Your task to perform on an android device: Open Google Maps and go to "Timeline" Image 0: 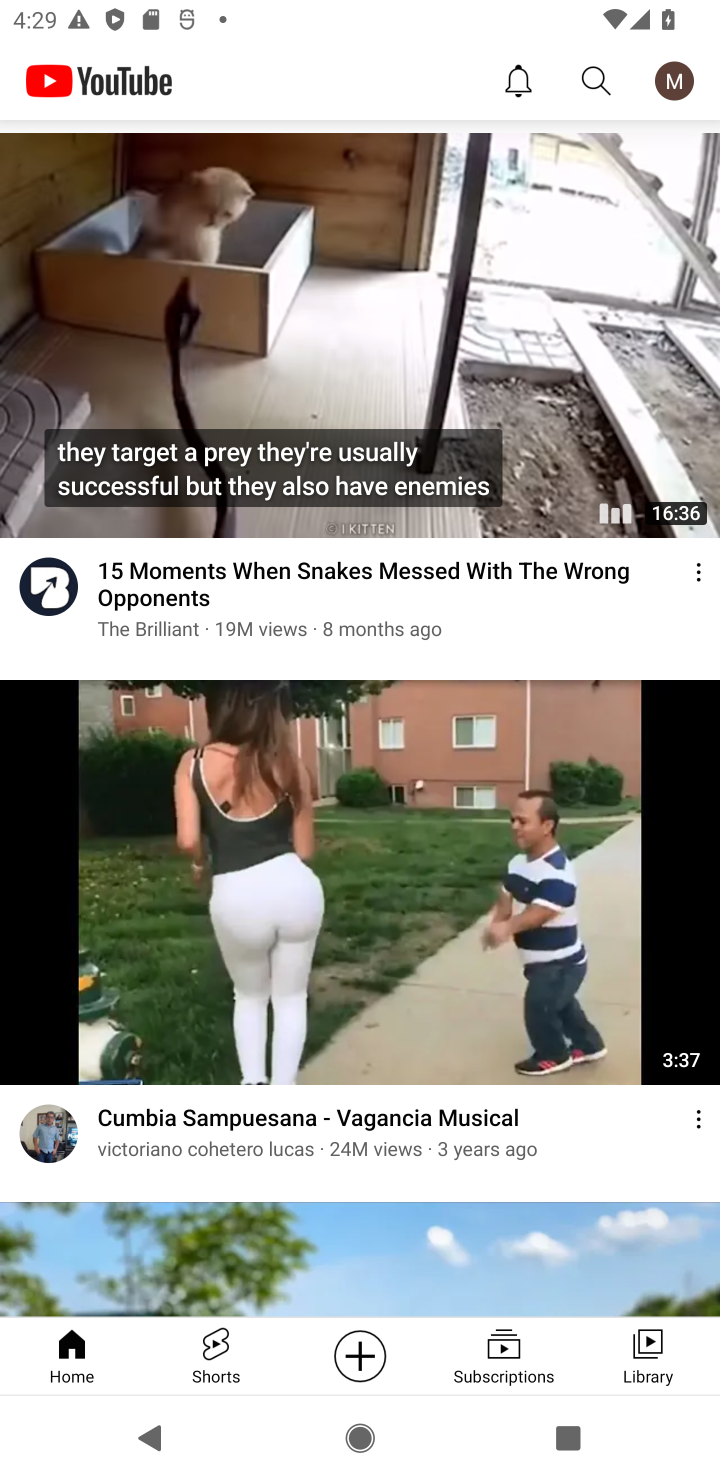
Step 0: press back button
Your task to perform on an android device: Open Google Maps and go to "Timeline" Image 1: 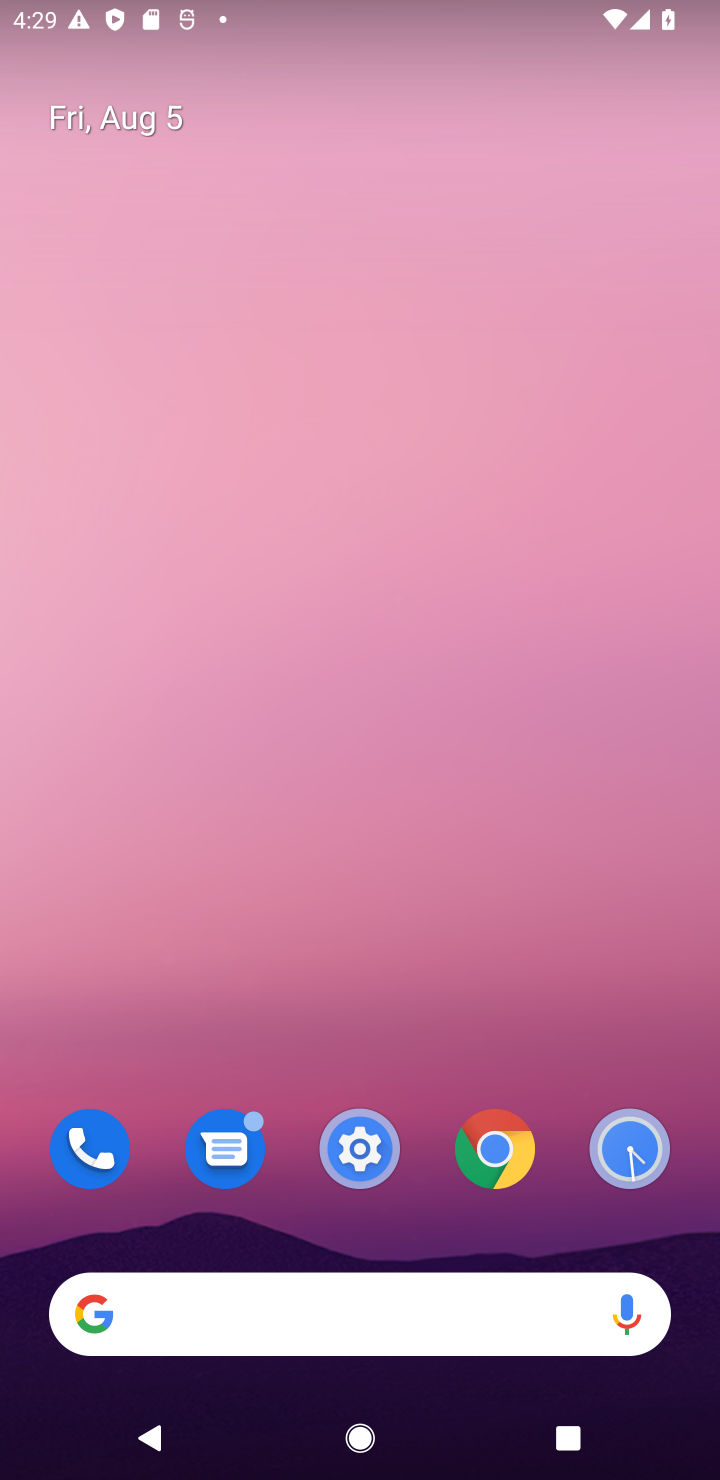
Step 1: press back button
Your task to perform on an android device: Open Google Maps and go to "Timeline" Image 2: 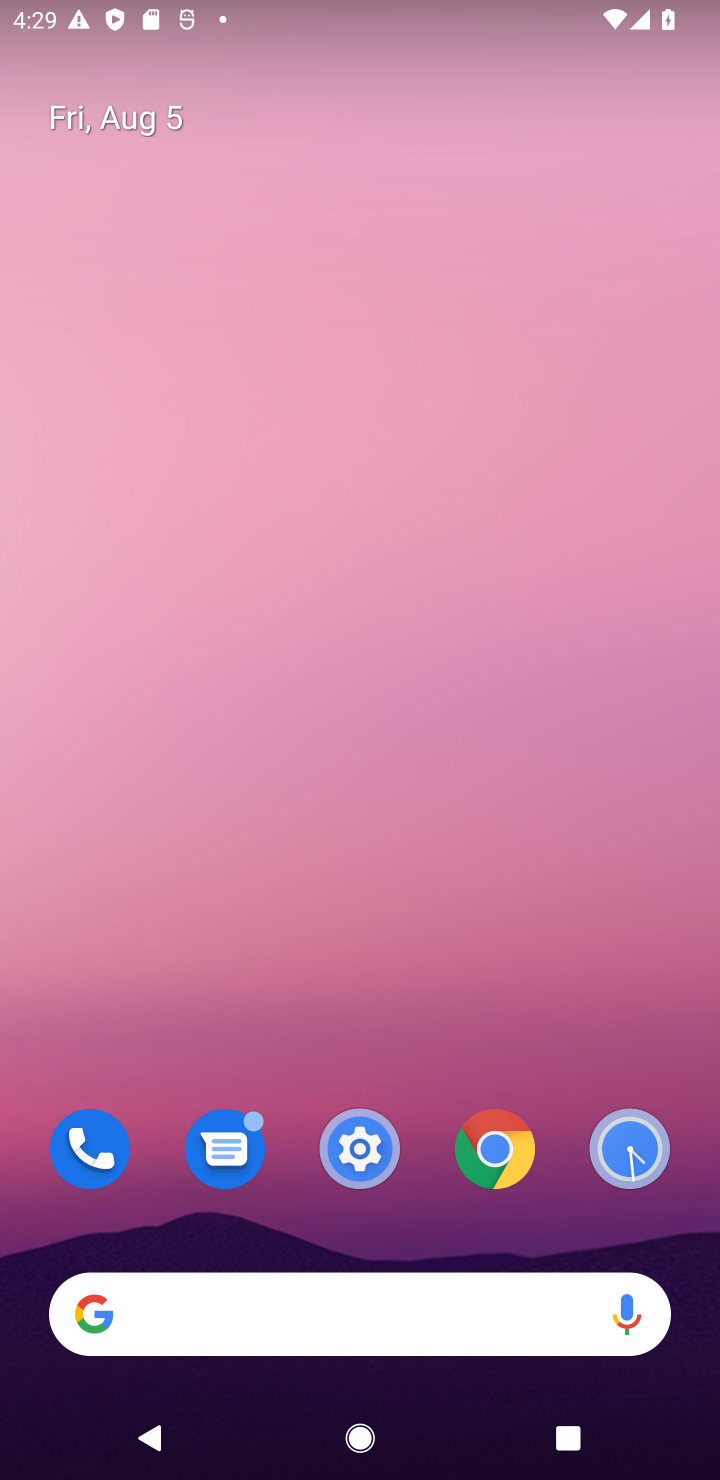
Step 2: drag from (289, 1050) to (397, 37)
Your task to perform on an android device: Open Google Maps and go to "Timeline" Image 3: 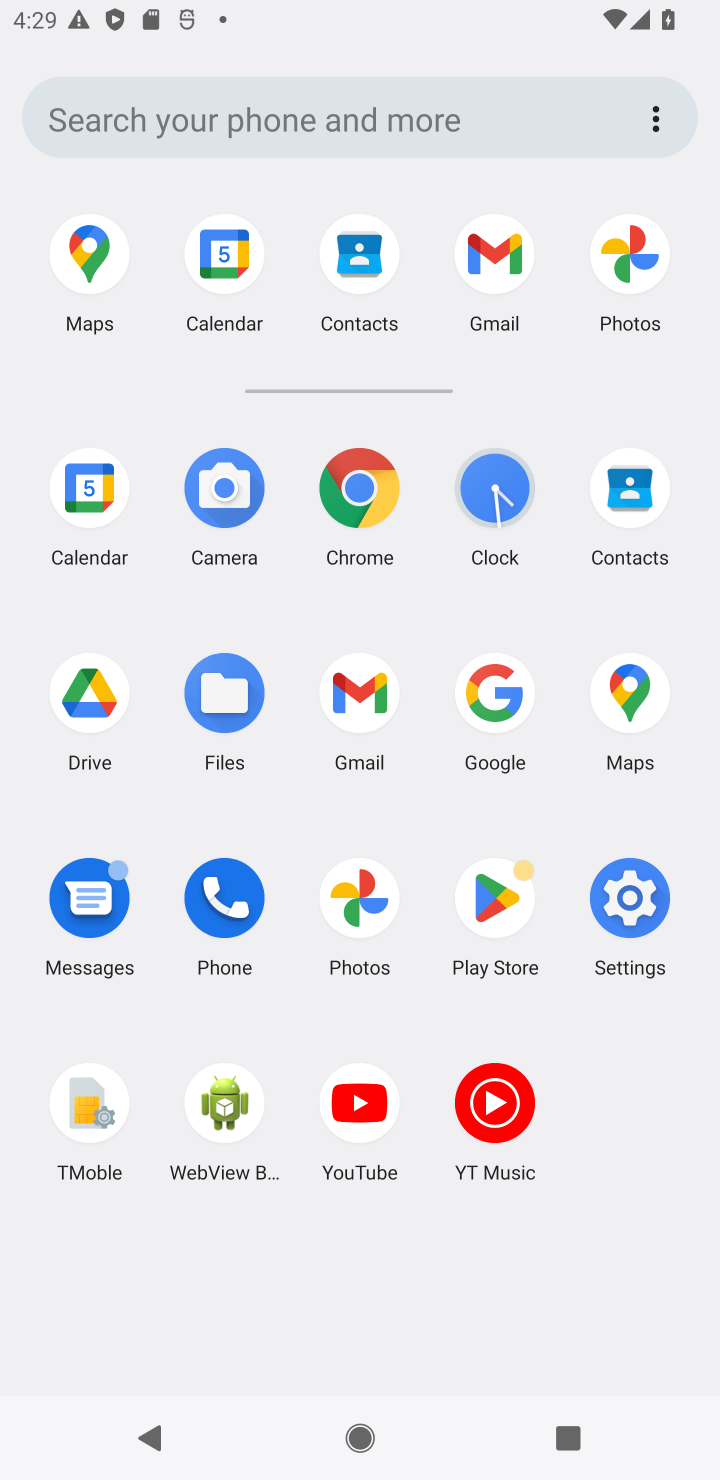
Step 3: click (72, 290)
Your task to perform on an android device: Open Google Maps and go to "Timeline" Image 4: 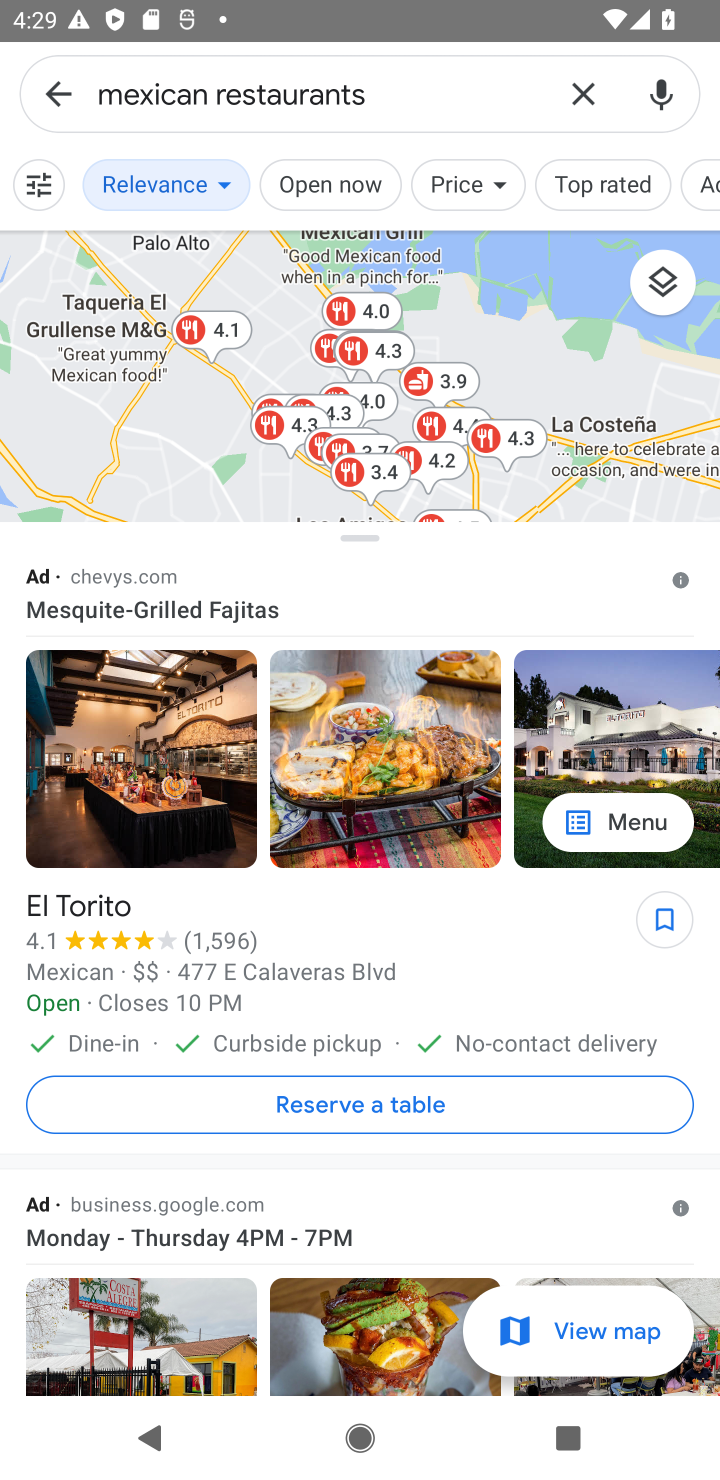
Step 4: click (63, 96)
Your task to perform on an android device: Open Google Maps and go to "Timeline" Image 5: 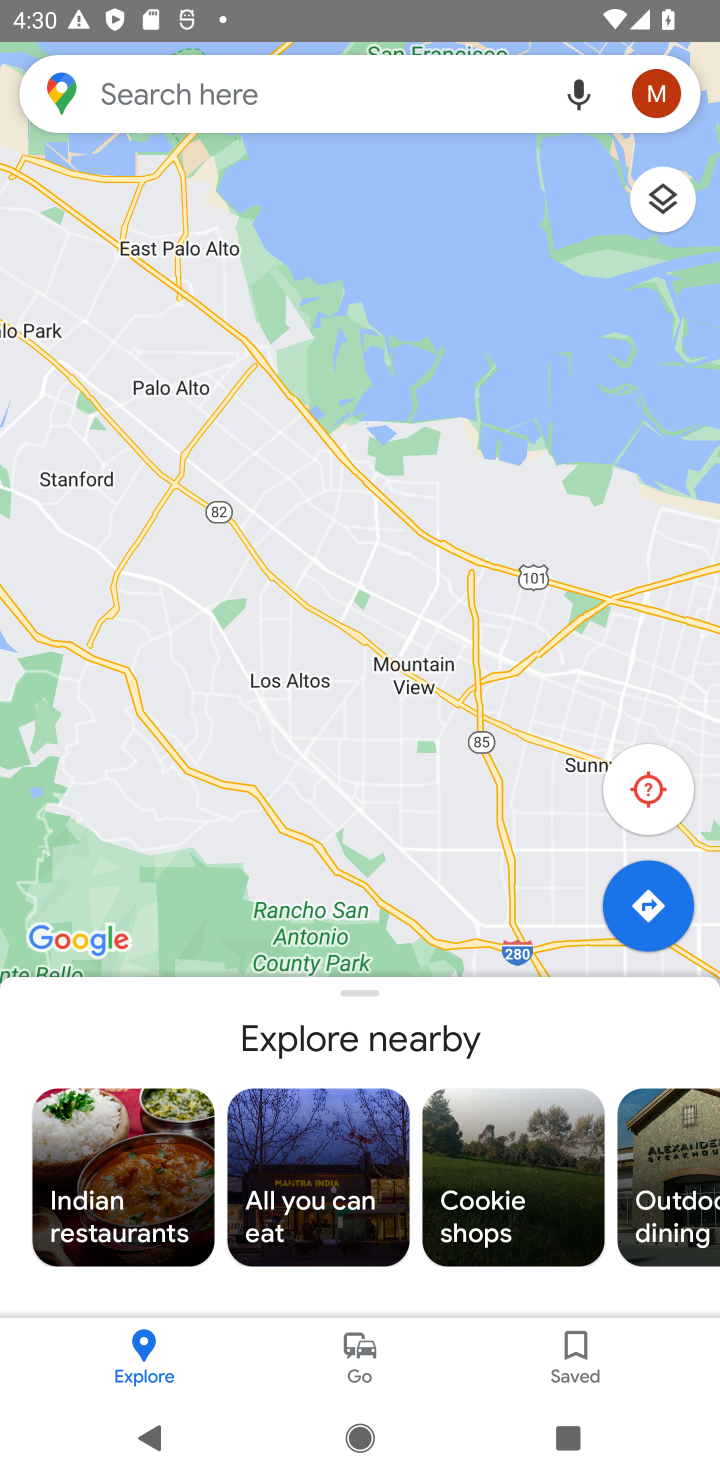
Step 5: click (635, 99)
Your task to perform on an android device: Open Google Maps and go to "Timeline" Image 6: 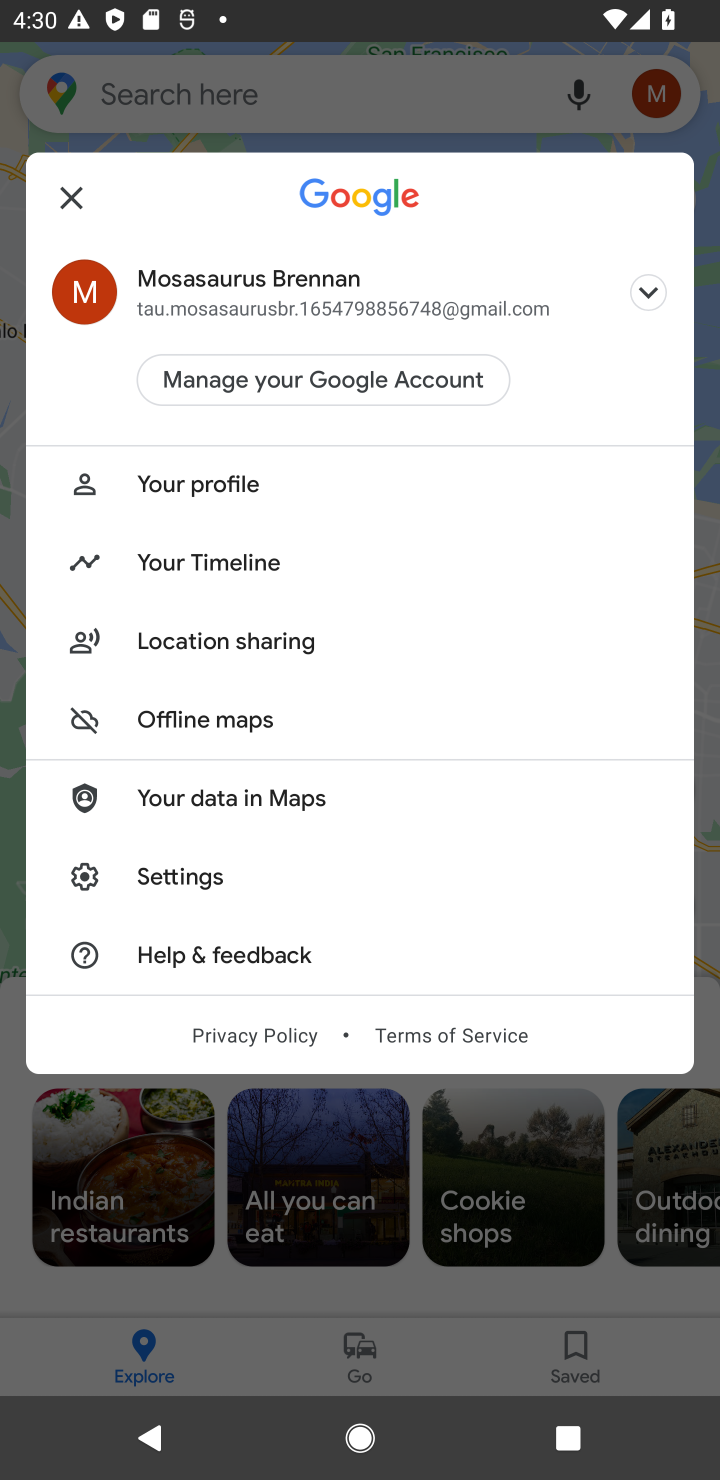
Step 6: click (175, 551)
Your task to perform on an android device: Open Google Maps and go to "Timeline" Image 7: 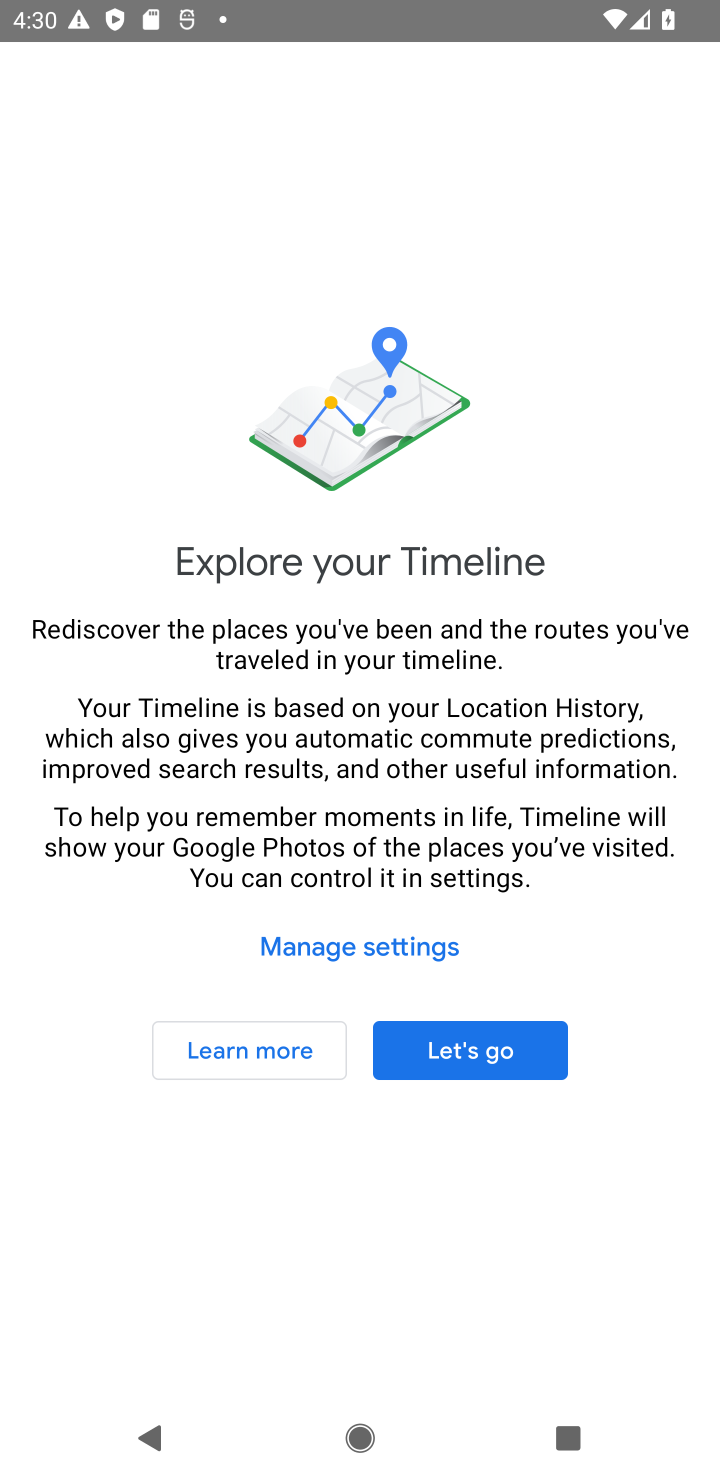
Step 7: task complete